Your task to perform on an android device: Clear all items from cart on costco. Search for rayovac triple a on costco, select the first entry, add it to the cart, then select checkout. Image 0: 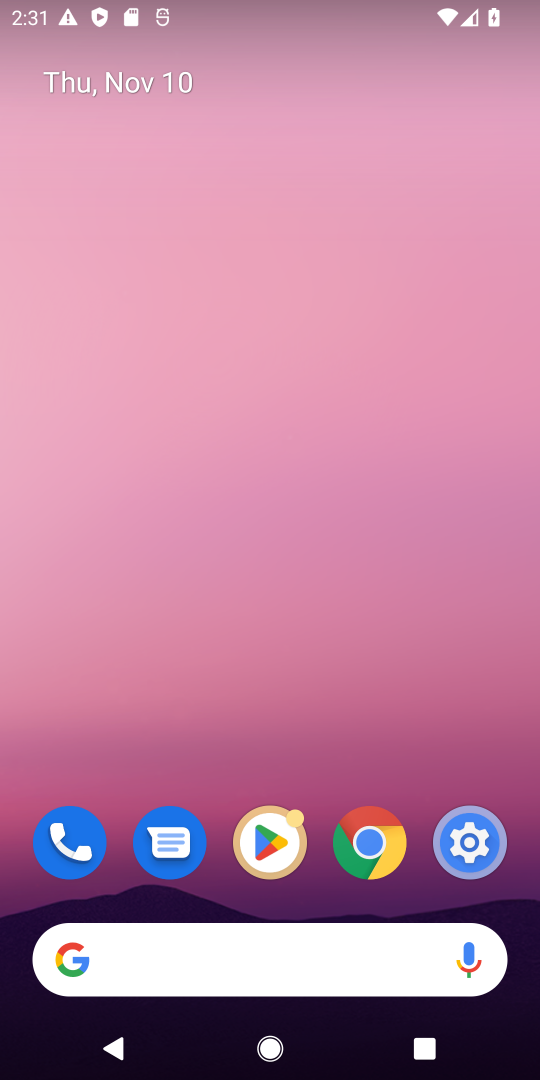
Step 0: click (163, 978)
Your task to perform on an android device: Clear all items from cart on costco. Search for rayovac triple a on costco, select the first entry, add it to the cart, then select checkout. Image 1: 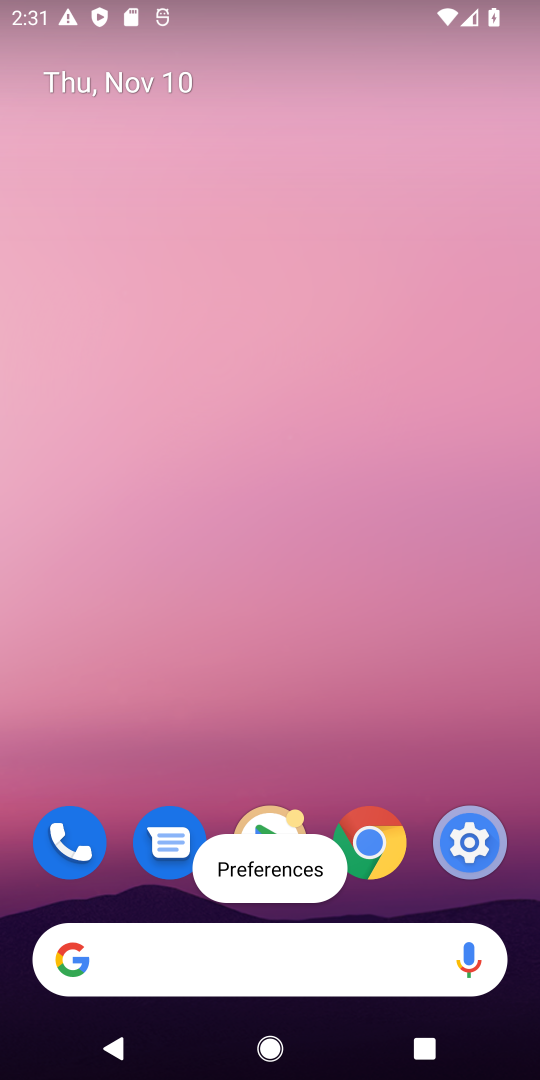
Step 1: click (246, 984)
Your task to perform on an android device: Clear all items from cart on costco. Search for rayovac triple a on costco, select the first entry, add it to the cart, then select checkout. Image 2: 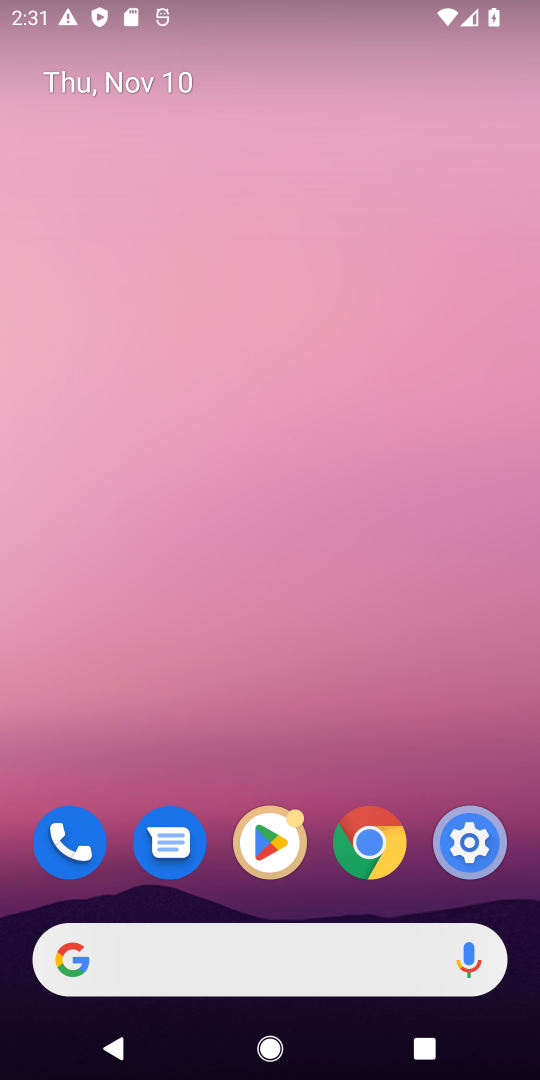
Step 2: click (236, 965)
Your task to perform on an android device: Clear all items from cart on costco. Search for rayovac triple a on costco, select the first entry, add it to the cart, then select checkout. Image 3: 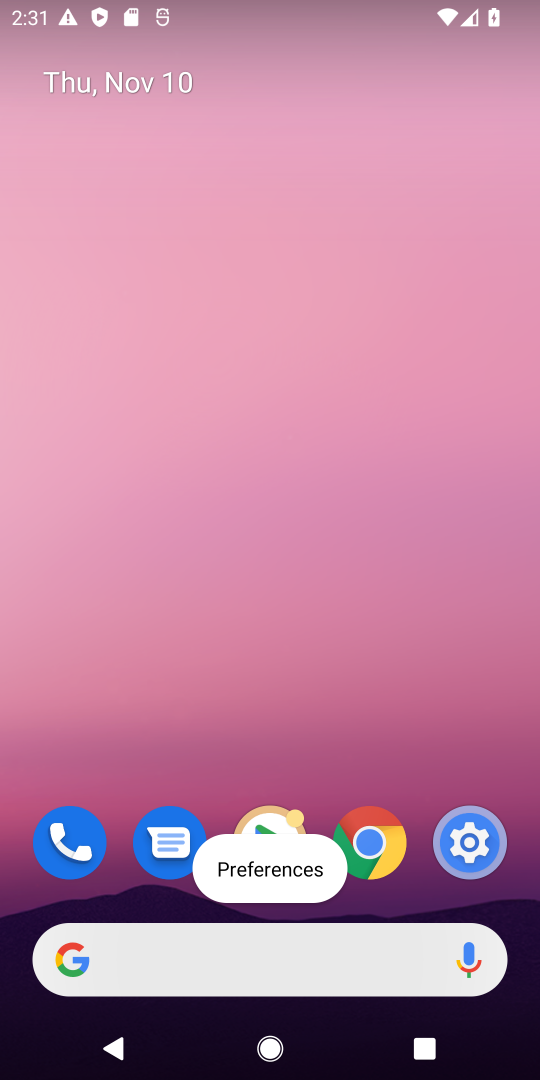
Step 3: click (239, 952)
Your task to perform on an android device: Clear all items from cart on costco. Search for rayovac triple a on costco, select the first entry, add it to the cart, then select checkout. Image 4: 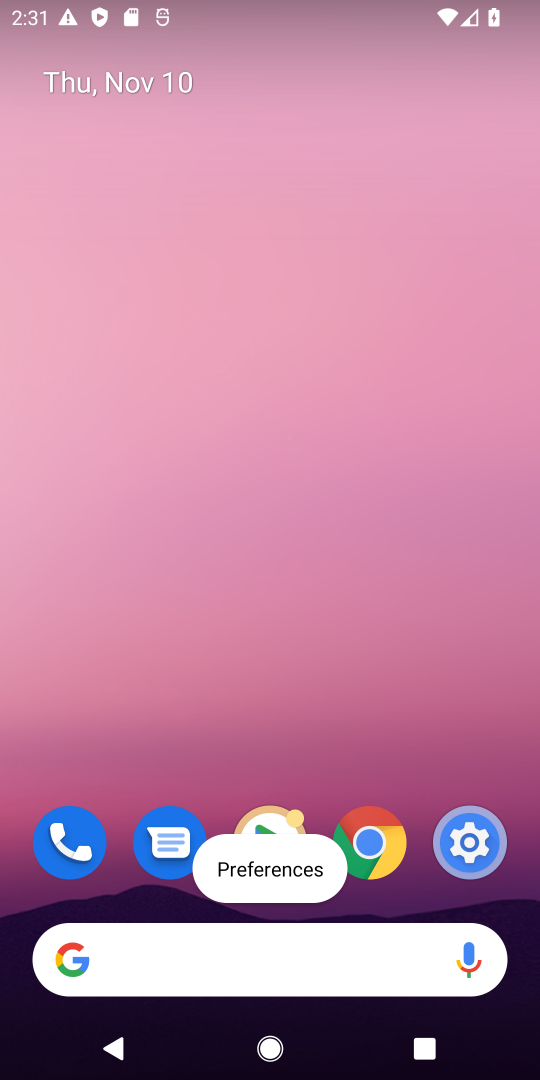
Step 4: click (239, 952)
Your task to perform on an android device: Clear all items from cart on costco. Search for rayovac triple a on costco, select the first entry, add it to the cart, then select checkout. Image 5: 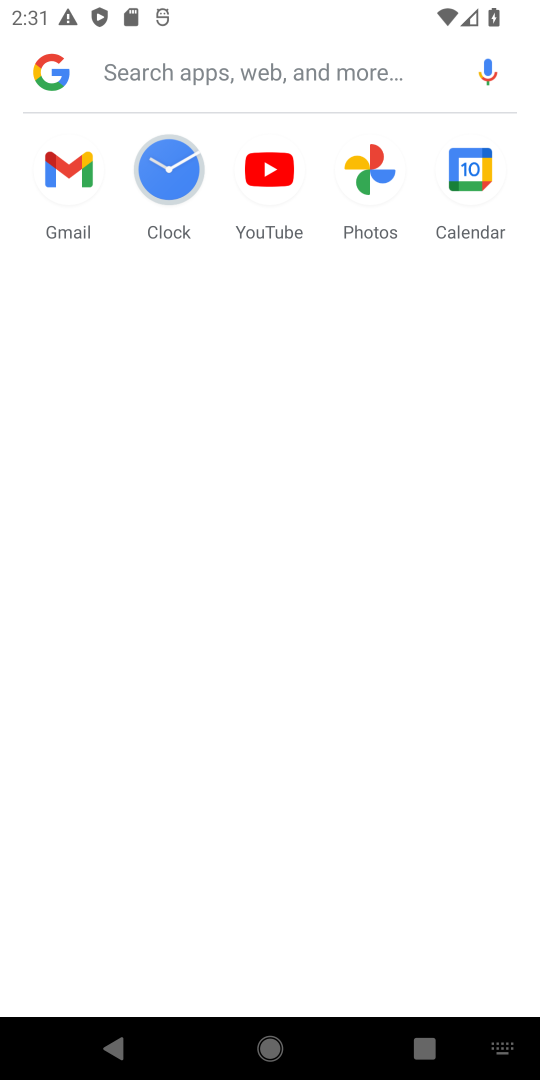
Step 5: type "costco"
Your task to perform on an android device: Clear all items from cart on costco. Search for rayovac triple a on costco, select the first entry, add it to the cart, then select checkout. Image 6: 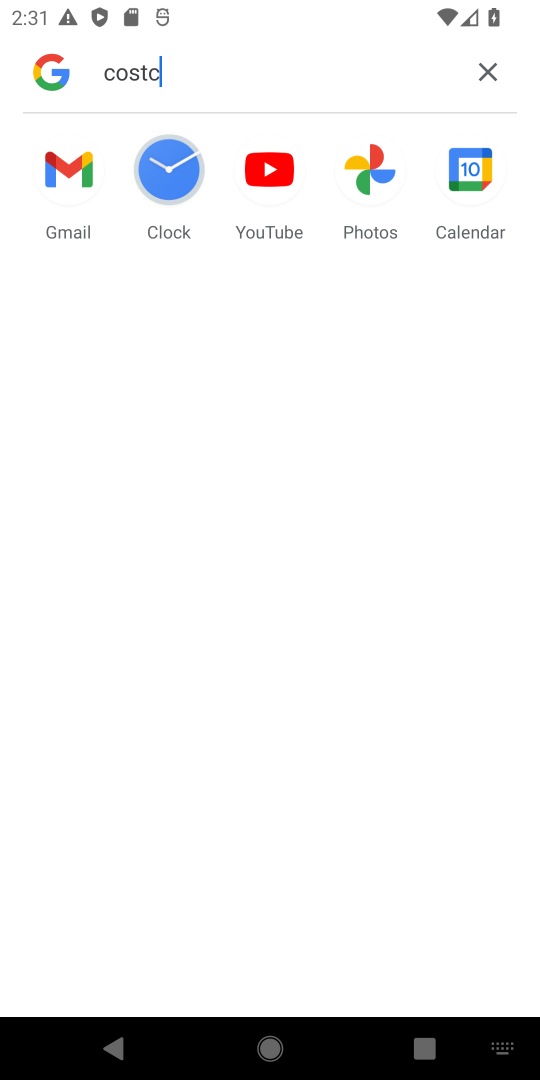
Step 6: type ""
Your task to perform on an android device: Clear all items from cart on costco. Search for rayovac triple a on costco, select the first entry, add it to the cart, then select checkout. Image 7: 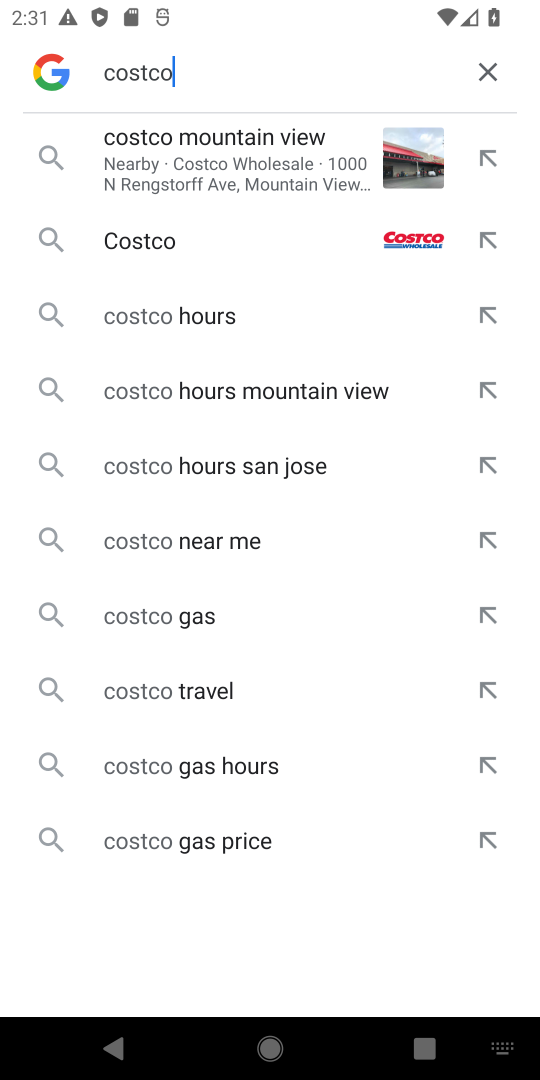
Step 7: press enter
Your task to perform on an android device: Clear all items from cart on costco. Search for rayovac triple a on costco, select the first entry, add it to the cart, then select checkout. Image 8: 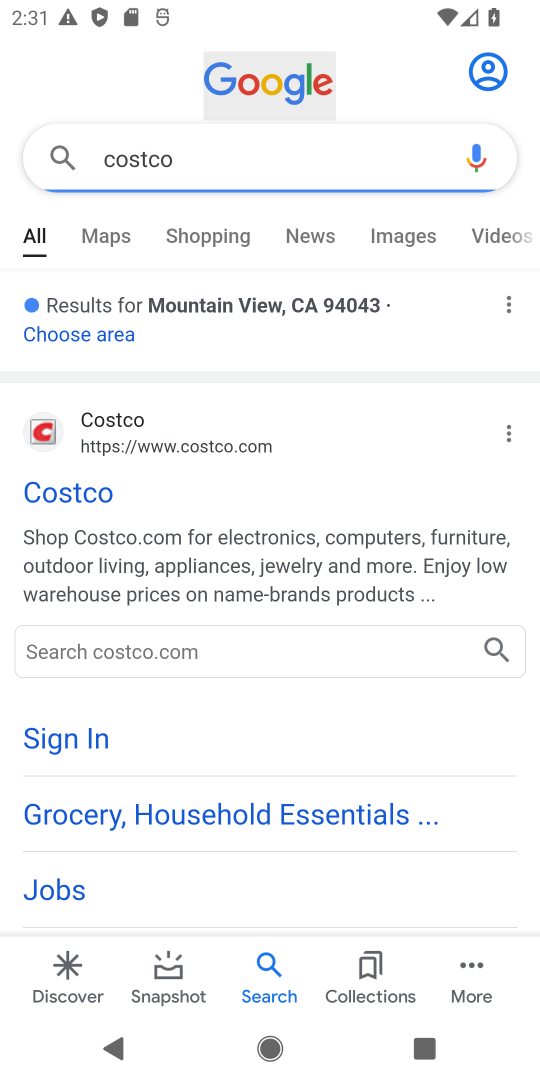
Step 8: click (113, 431)
Your task to perform on an android device: Clear all items from cart on costco. Search for rayovac triple a on costco, select the first entry, add it to the cart, then select checkout. Image 9: 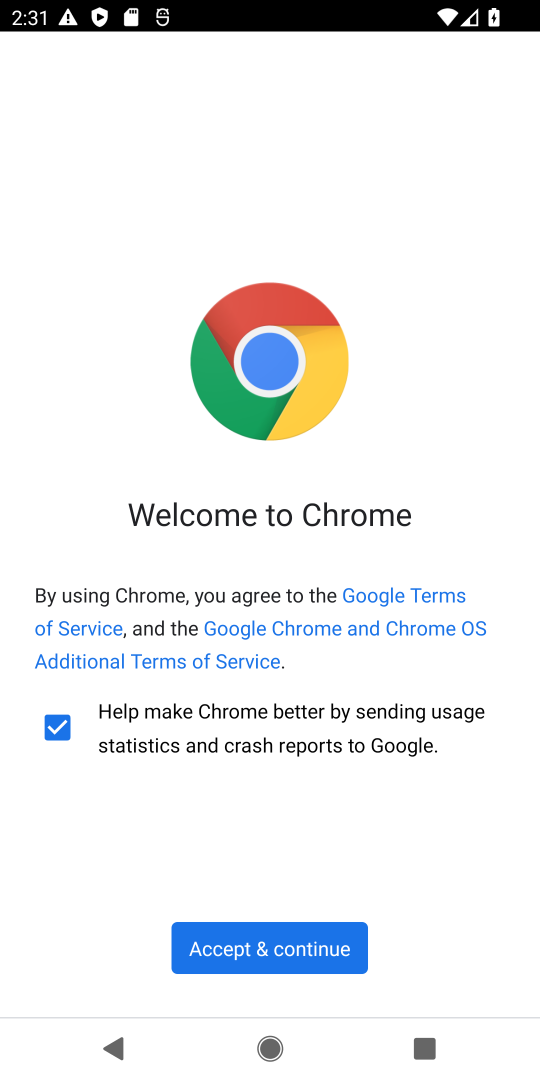
Step 9: click (320, 931)
Your task to perform on an android device: Clear all items from cart on costco. Search for rayovac triple a on costco, select the first entry, add it to the cart, then select checkout. Image 10: 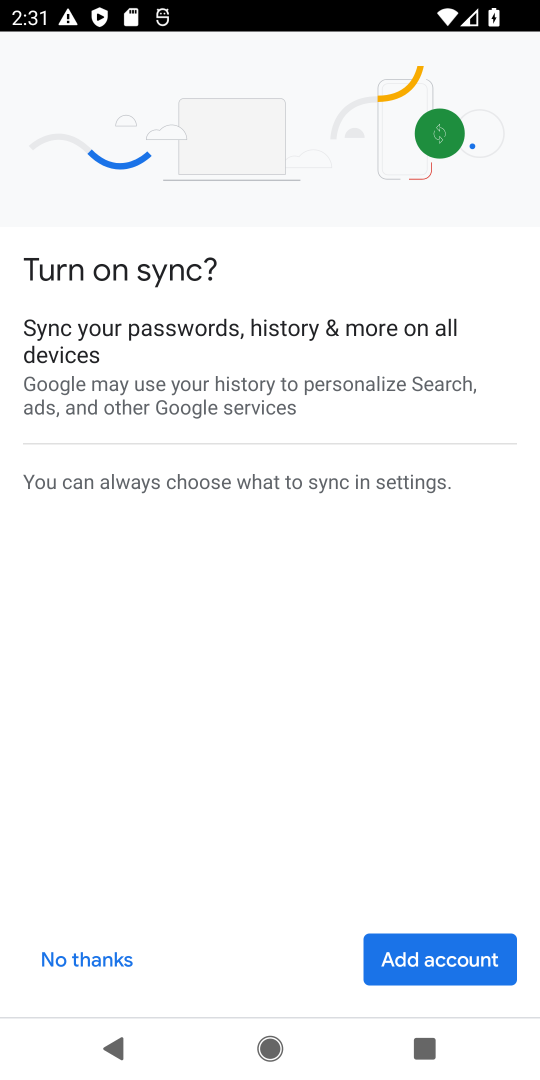
Step 10: click (450, 979)
Your task to perform on an android device: Clear all items from cart on costco. Search for rayovac triple a on costco, select the first entry, add it to the cart, then select checkout. Image 11: 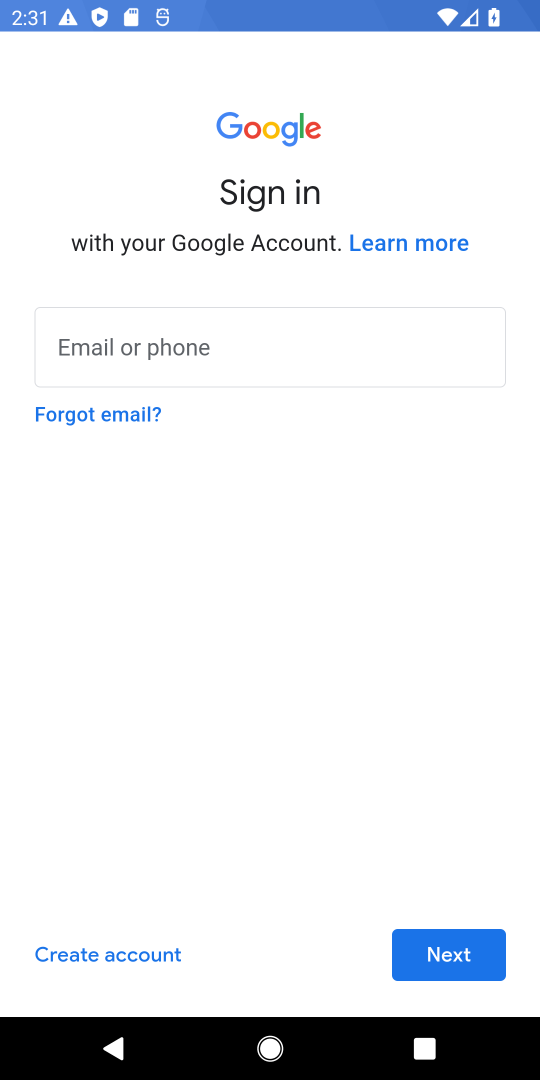
Step 11: click (107, 961)
Your task to perform on an android device: Clear all items from cart on costco. Search for rayovac triple a on costco, select the first entry, add it to the cart, then select checkout. Image 12: 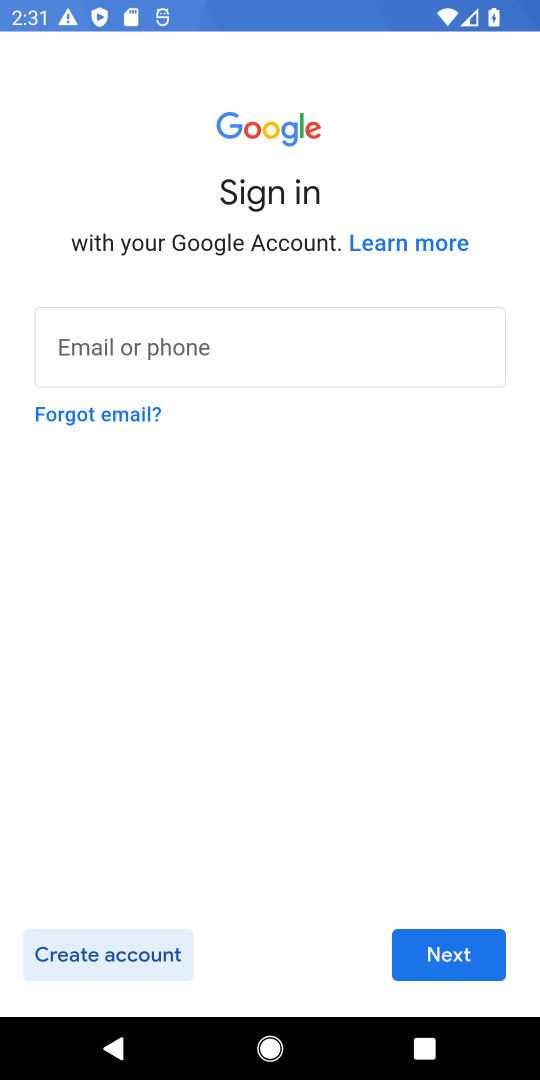
Step 12: click (432, 941)
Your task to perform on an android device: Clear all items from cart on costco. Search for rayovac triple a on costco, select the first entry, add it to the cart, then select checkout. Image 13: 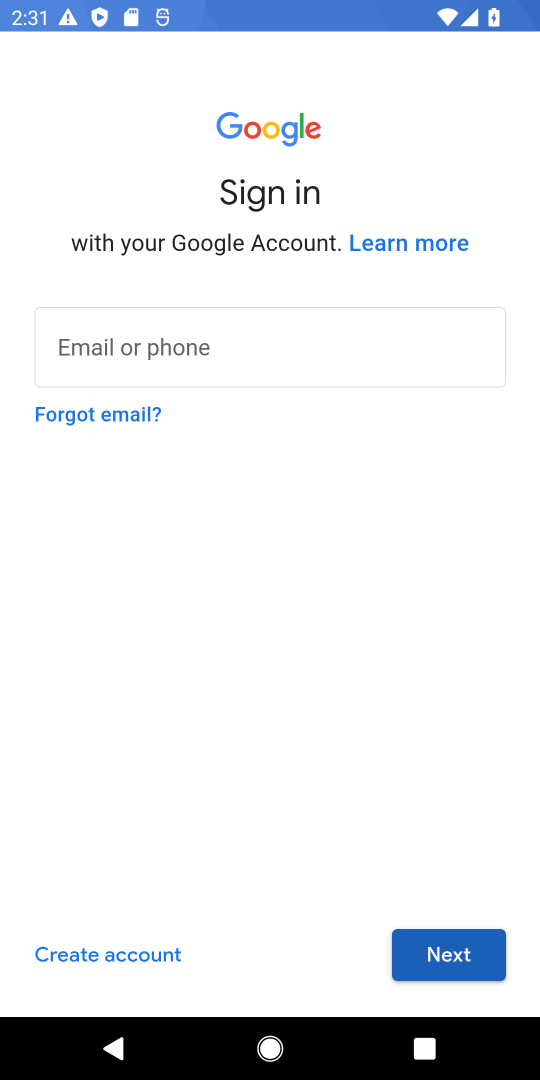
Step 13: click (417, 948)
Your task to perform on an android device: Clear all items from cart on costco. Search for rayovac triple a on costco, select the first entry, add it to the cart, then select checkout. Image 14: 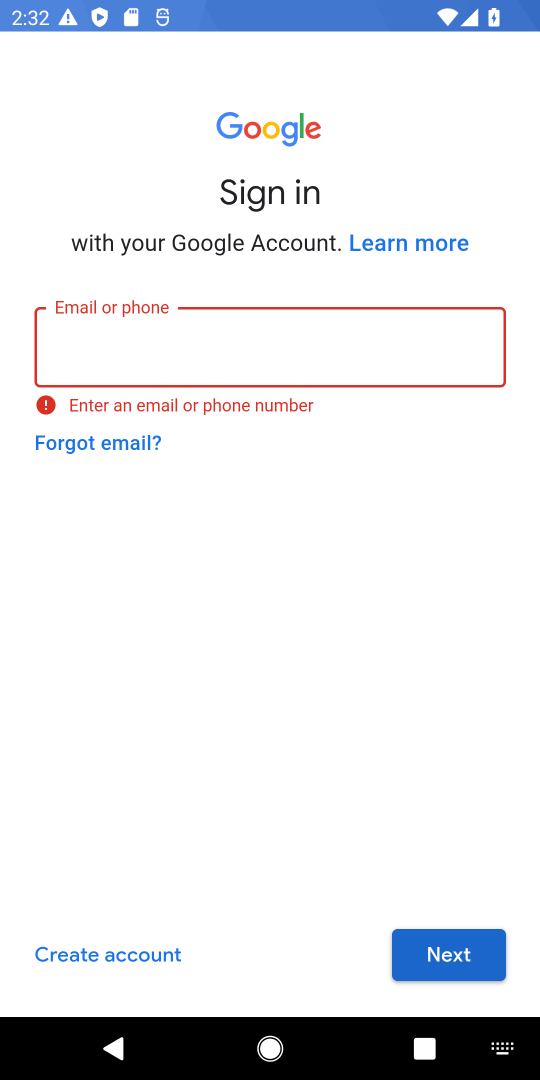
Step 14: task complete